Your task to perform on an android device: Go to Amazon Image 0: 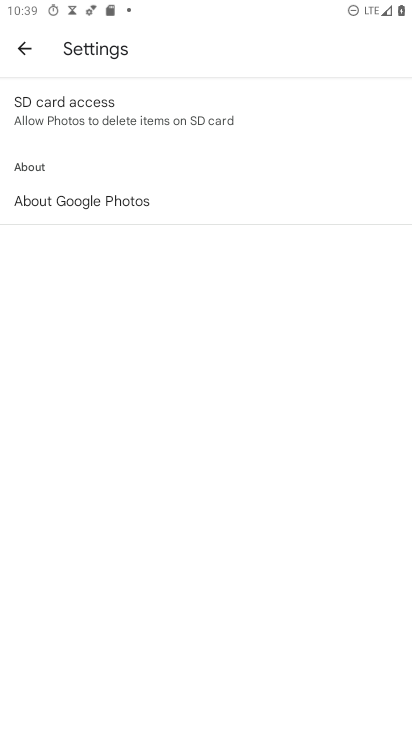
Step 0: press home button
Your task to perform on an android device: Go to Amazon Image 1: 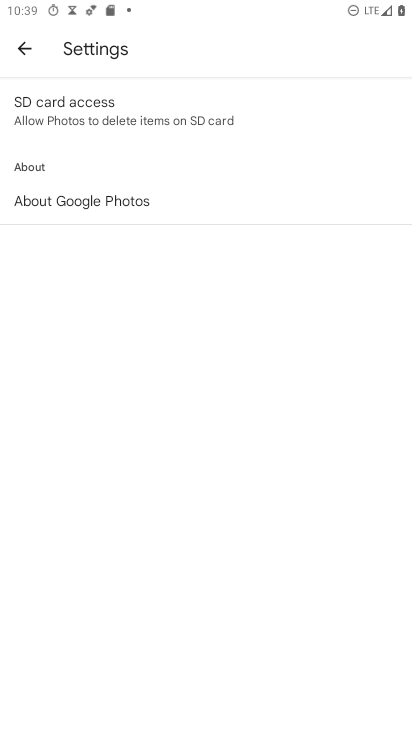
Step 1: press home button
Your task to perform on an android device: Go to Amazon Image 2: 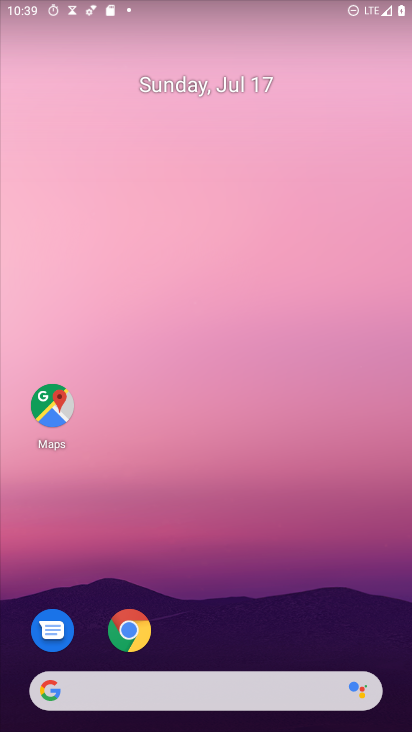
Step 2: drag from (187, 706) to (278, 6)
Your task to perform on an android device: Go to Amazon Image 3: 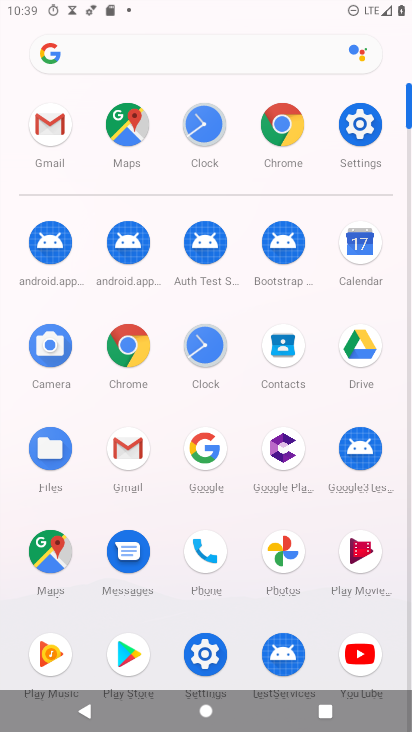
Step 3: click (142, 345)
Your task to perform on an android device: Go to Amazon Image 4: 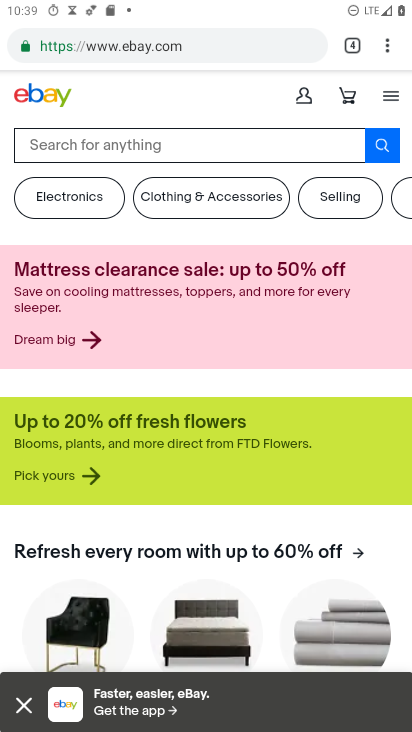
Step 4: click (120, 45)
Your task to perform on an android device: Go to Amazon Image 5: 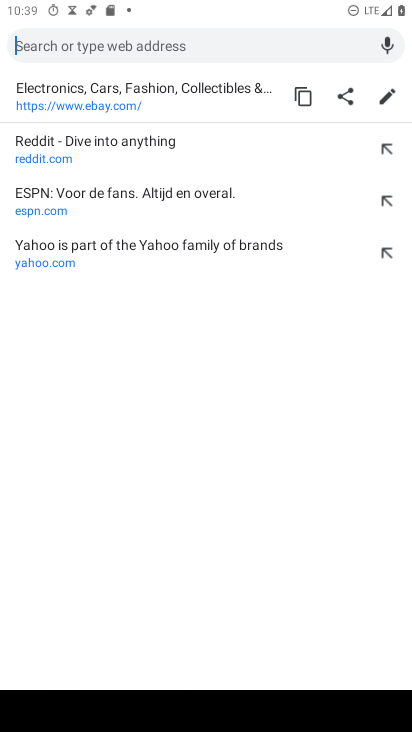
Step 5: type "amazon"
Your task to perform on an android device: Go to Amazon Image 6: 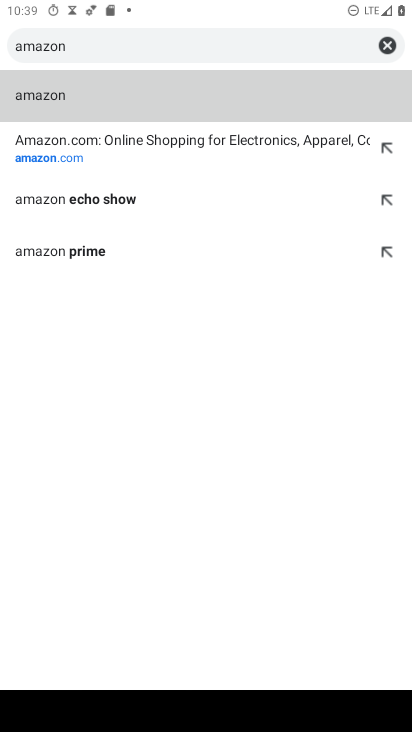
Step 6: click (100, 144)
Your task to perform on an android device: Go to Amazon Image 7: 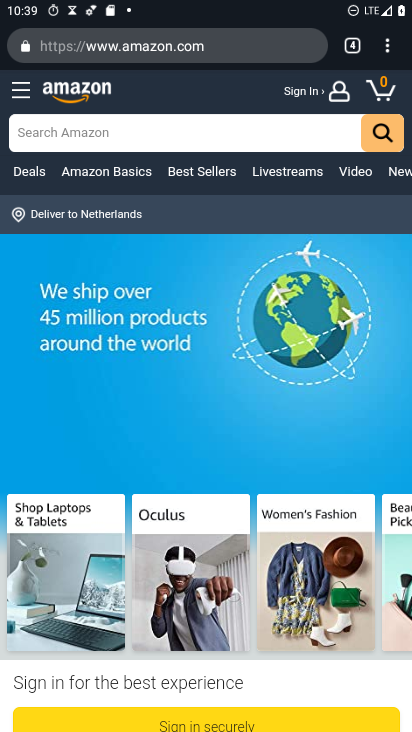
Step 7: task complete